Your task to perform on an android device: turn off picture-in-picture Image 0: 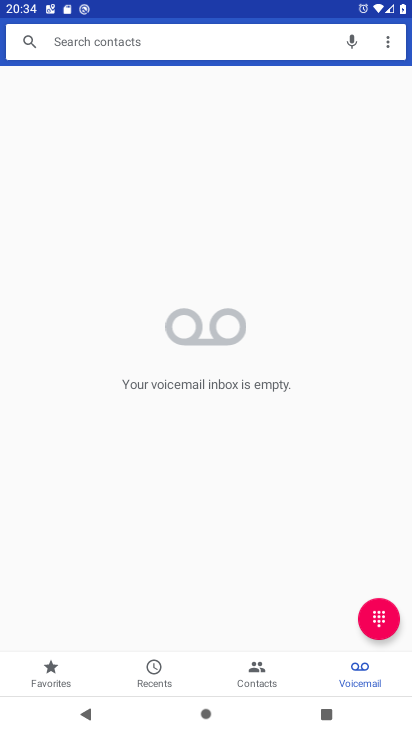
Step 0: press home button
Your task to perform on an android device: turn off picture-in-picture Image 1: 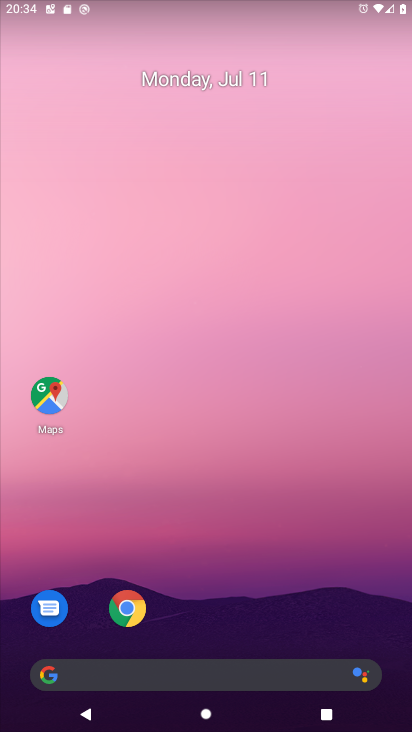
Step 1: drag from (279, 627) to (203, 64)
Your task to perform on an android device: turn off picture-in-picture Image 2: 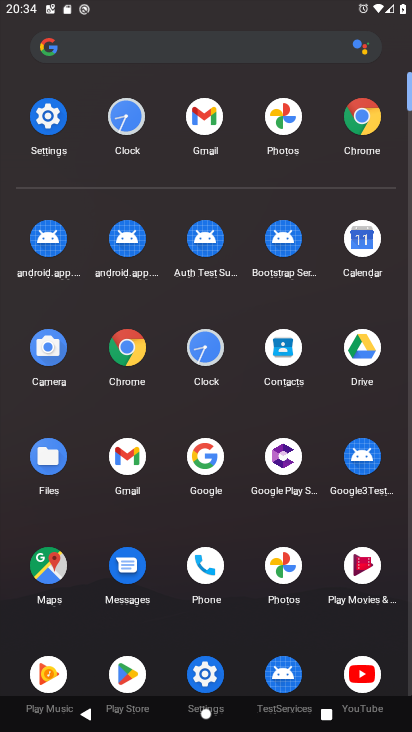
Step 2: click (55, 133)
Your task to perform on an android device: turn off picture-in-picture Image 3: 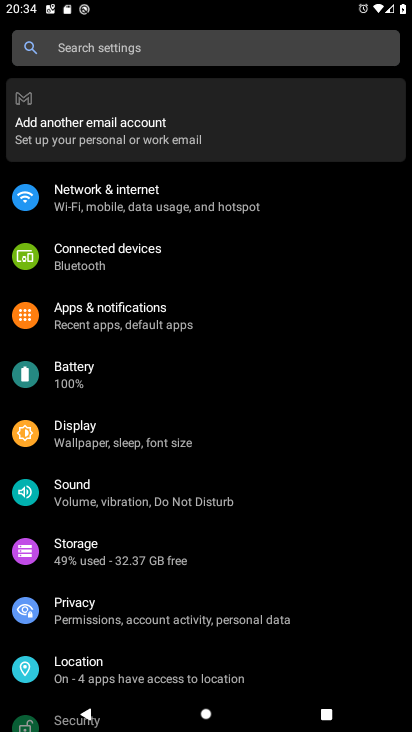
Step 3: click (151, 300)
Your task to perform on an android device: turn off picture-in-picture Image 4: 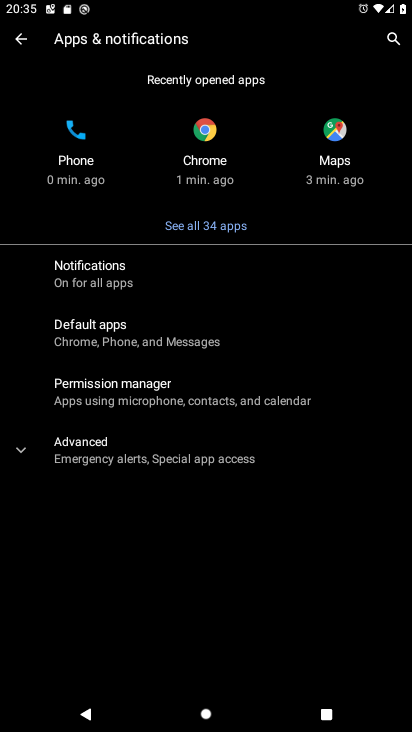
Step 4: click (143, 463)
Your task to perform on an android device: turn off picture-in-picture Image 5: 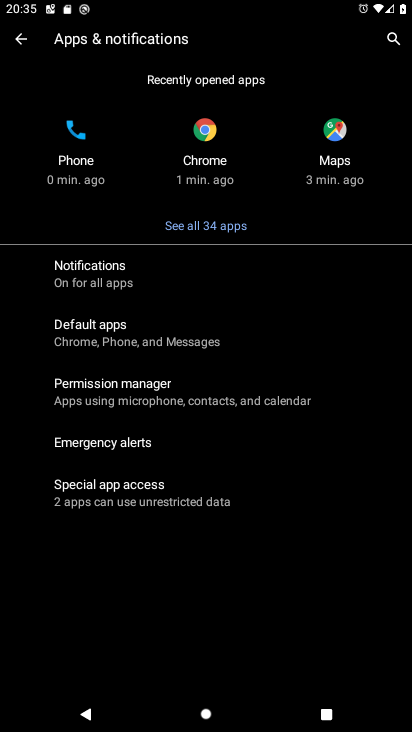
Step 5: click (134, 475)
Your task to perform on an android device: turn off picture-in-picture Image 6: 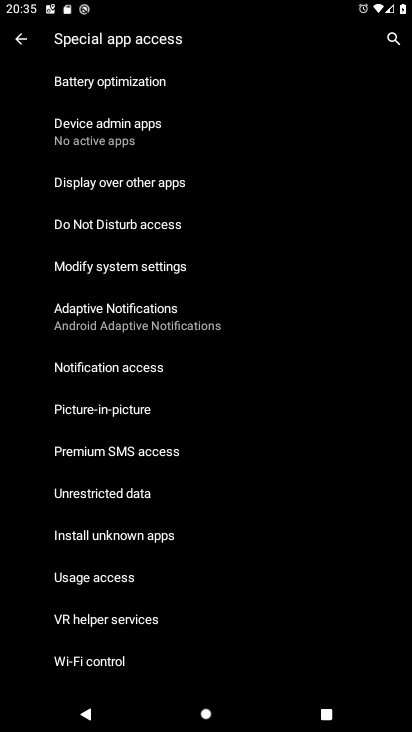
Step 6: click (140, 404)
Your task to perform on an android device: turn off picture-in-picture Image 7: 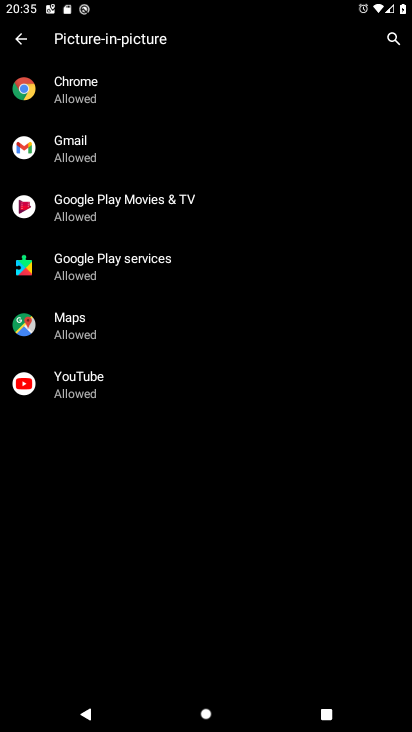
Step 7: click (119, 91)
Your task to perform on an android device: turn off picture-in-picture Image 8: 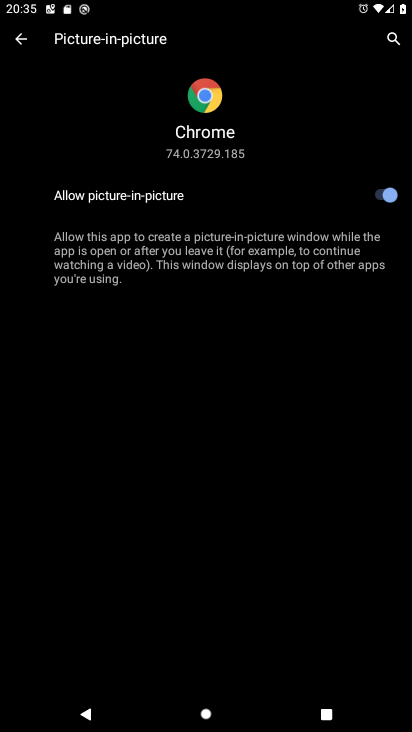
Step 8: click (363, 190)
Your task to perform on an android device: turn off picture-in-picture Image 9: 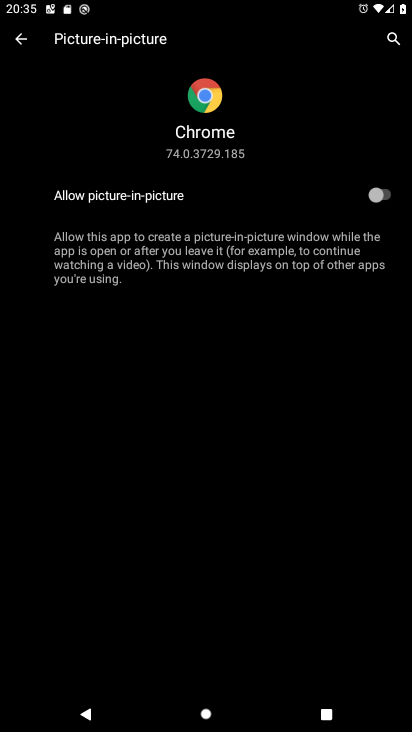
Step 9: task complete